Your task to perform on an android device: Open privacy settings Image 0: 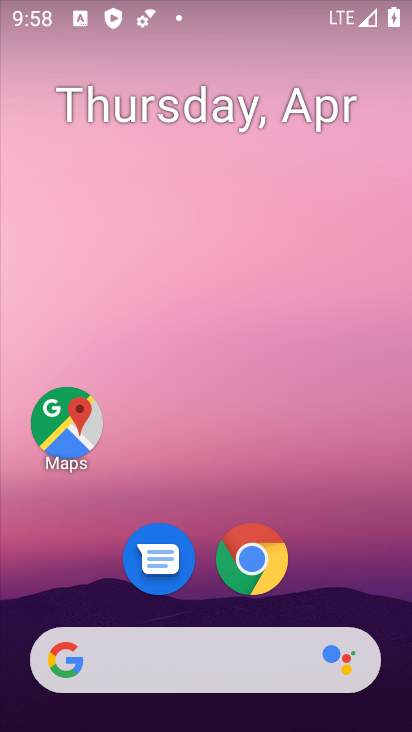
Step 0: drag from (198, 695) to (189, 160)
Your task to perform on an android device: Open privacy settings Image 1: 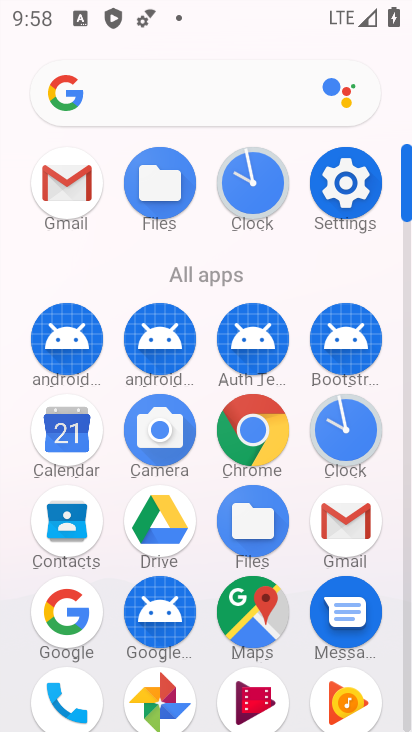
Step 1: click (343, 171)
Your task to perform on an android device: Open privacy settings Image 2: 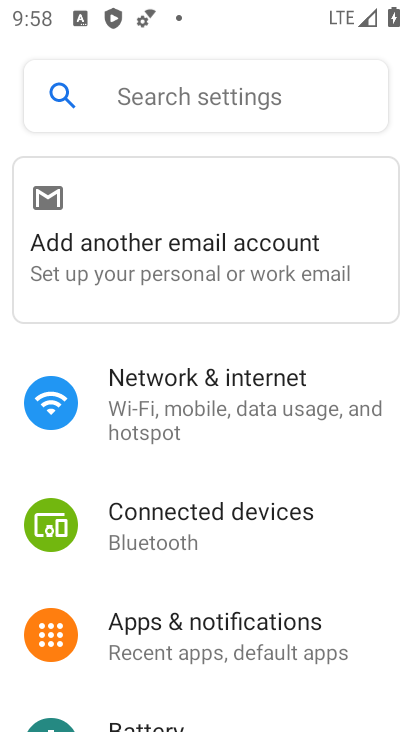
Step 2: drag from (274, 664) to (227, 44)
Your task to perform on an android device: Open privacy settings Image 3: 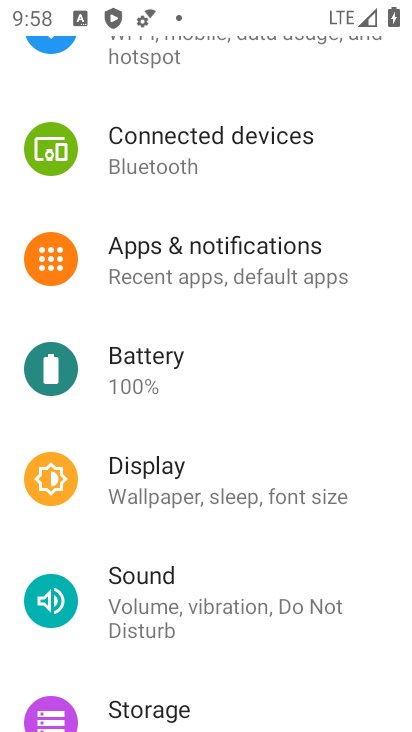
Step 3: drag from (298, 666) to (286, 24)
Your task to perform on an android device: Open privacy settings Image 4: 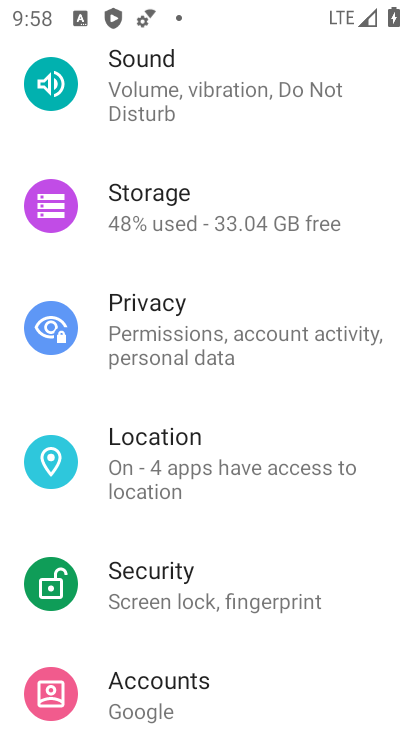
Step 4: click (202, 326)
Your task to perform on an android device: Open privacy settings Image 5: 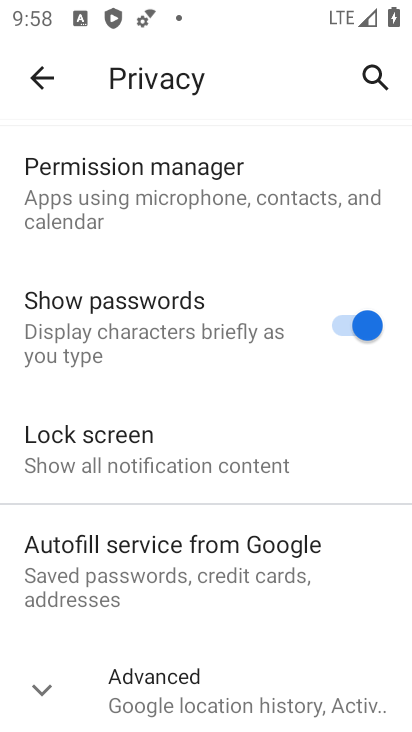
Step 5: task complete